Your task to perform on an android device: change notifications settings Image 0: 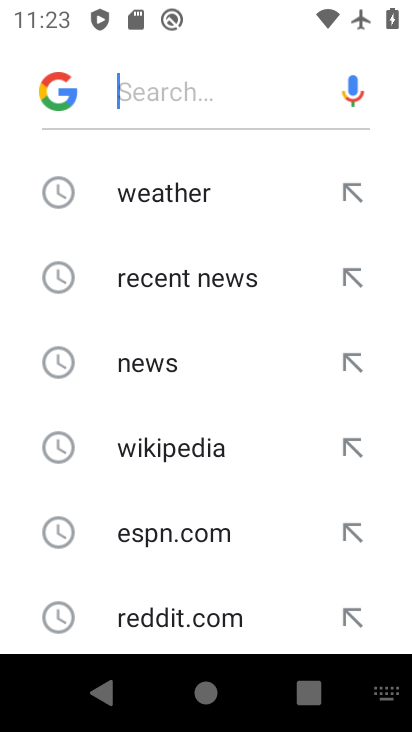
Step 0: press home button
Your task to perform on an android device: change notifications settings Image 1: 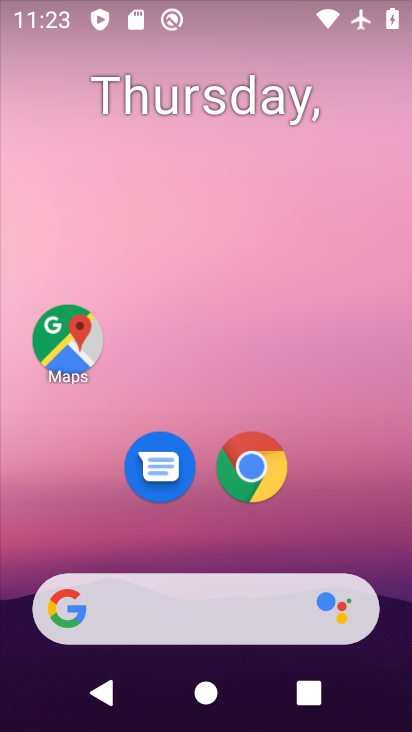
Step 1: drag from (356, 553) to (382, 0)
Your task to perform on an android device: change notifications settings Image 2: 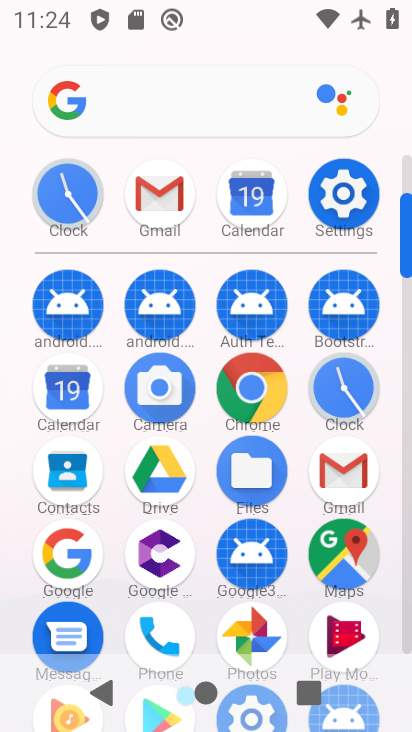
Step 2: click (343, 208)
Your task to perform on an android device: change notifications settings Image 3: 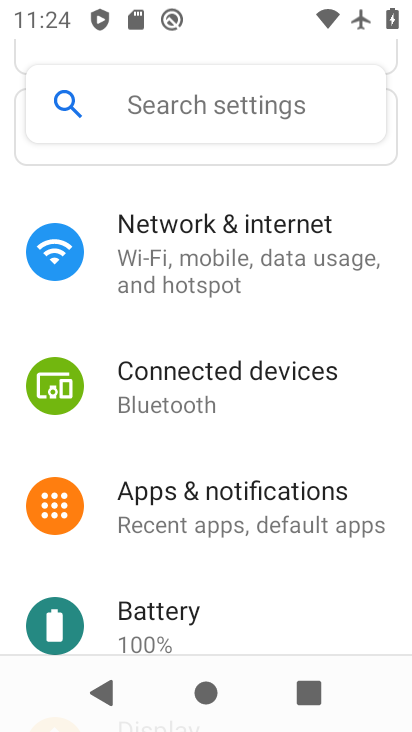
Step 3: click (218, 502)
Your task to perform on an android device: change notifications settings Image 4: 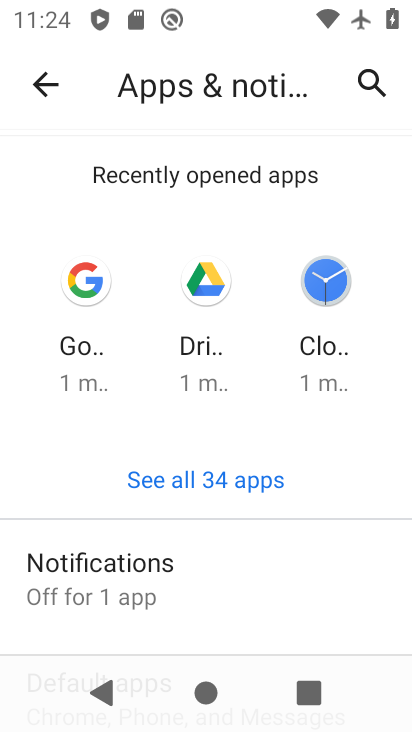
Step 4: drag from (295, 565) to (301, 222)
Your task to perform on an android device: change notifications settings Image 5: 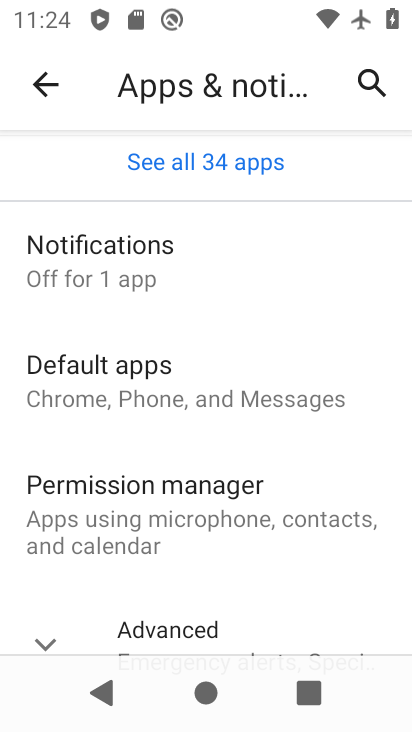
Step 5: click (94, 264)
Your task to perform on an android device: change notifications settings Image 6: 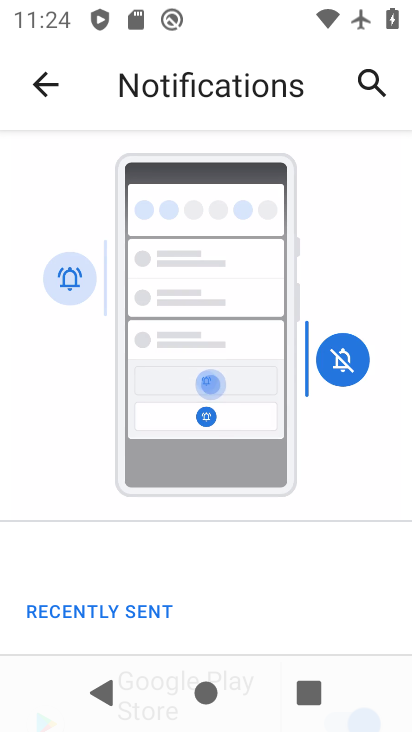
Step 6: drag from (212, 552) to (220, 121)
Your task to perform on an android device: change notifications settings Image 7: 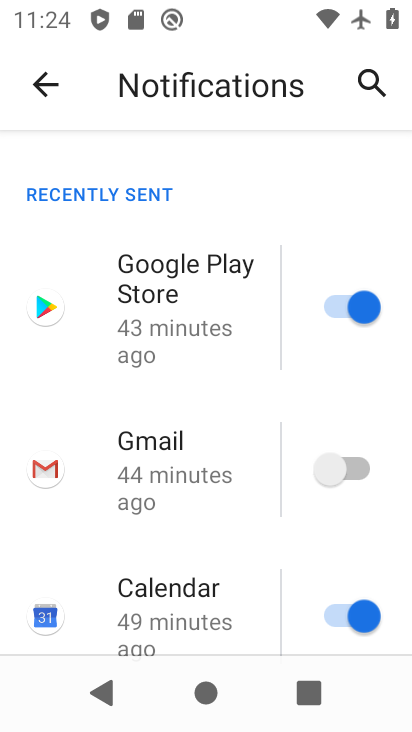
Step 7: drag from (190, 484) to (189, 111)
Your task to perform on an android device: change notifications settings Image 8: 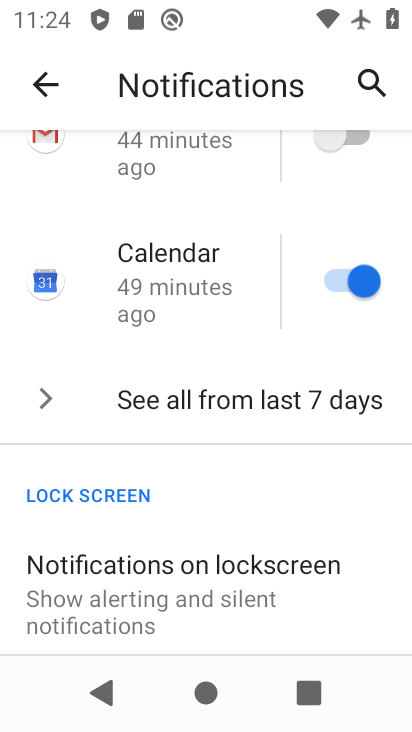
Step 8: click (201, 403)
Your task to perform on an android device: change notifications settings Image 9: 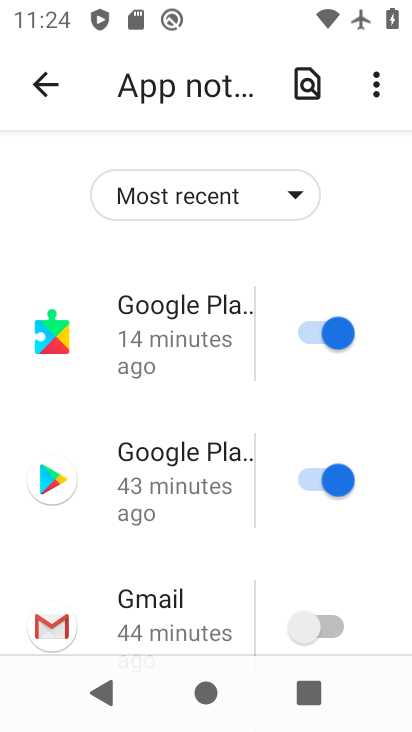
Step 9: click (298, 200)
Your task to perform on an android device: change notifications settings Image 10: 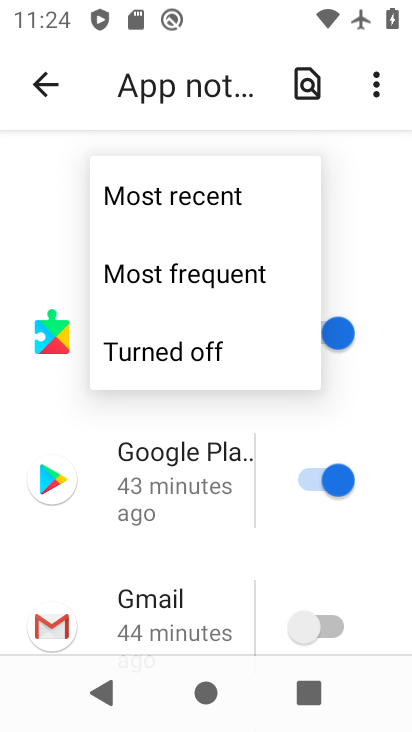
Step 10: click (154, 271)
Your task to perform on an android device: change notifications settings Image 11: 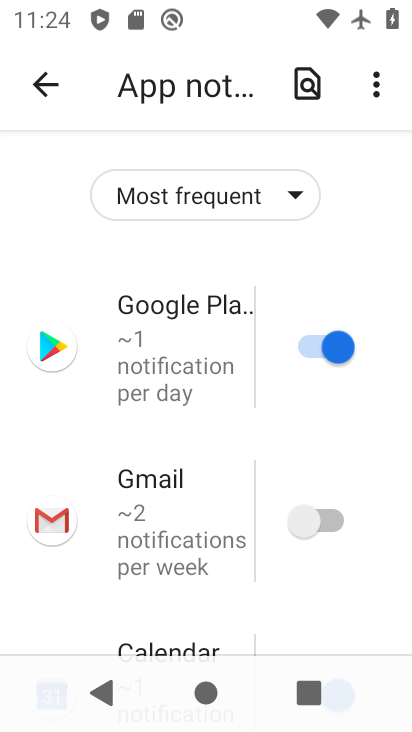
Step 11: task complete